Your task to perform on an android device: find snoozed emails in the gmail app Image 0: 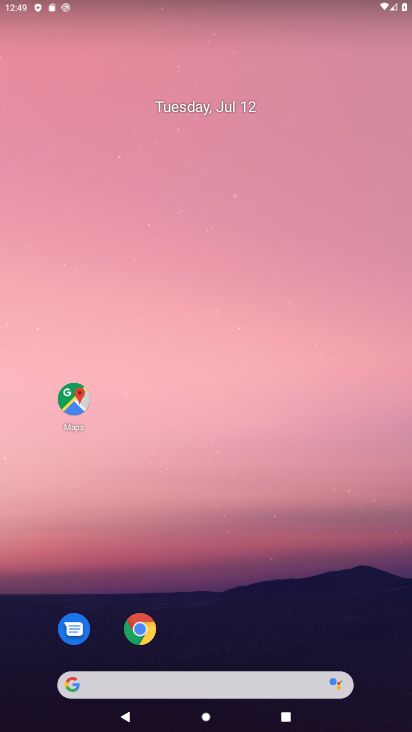
Step 0: drag from (305, 648) to (352, 80)
Your task to perform on an android device: find snoozed emails in the gmail app Image 1: 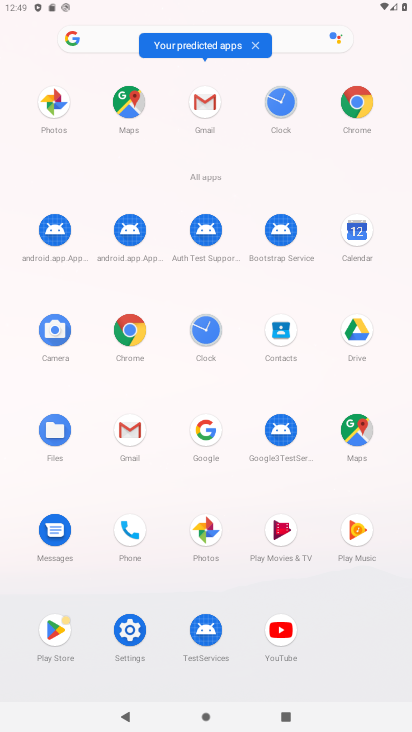
Step 1: click (124, 640)
Your task to perform on an android device: find snoozed emails in the gmail app Image 2: 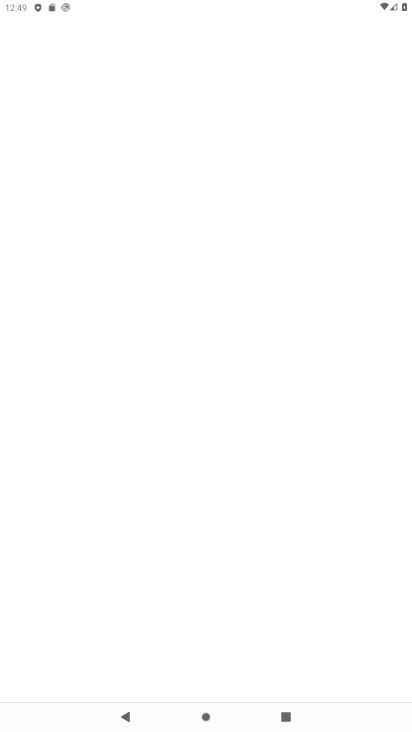
Step 2: press home button
Your task to perform on an android device: find snoozed emails in the gmail app Image 3: 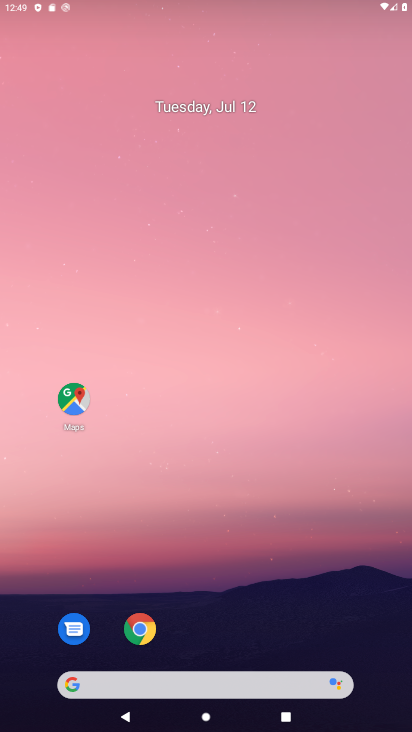
Step 3: drag from (277, 653) to (307, 121)
Your task to perform on an android device: find snoozed emails in the gmail app Image 4: 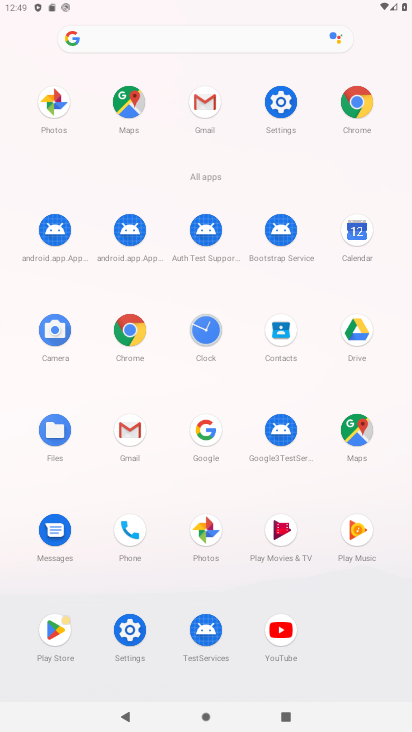
Step 4: click (125, 444)
Your task to perform on an android device: find snoozed emails in the gmail app Image 5: 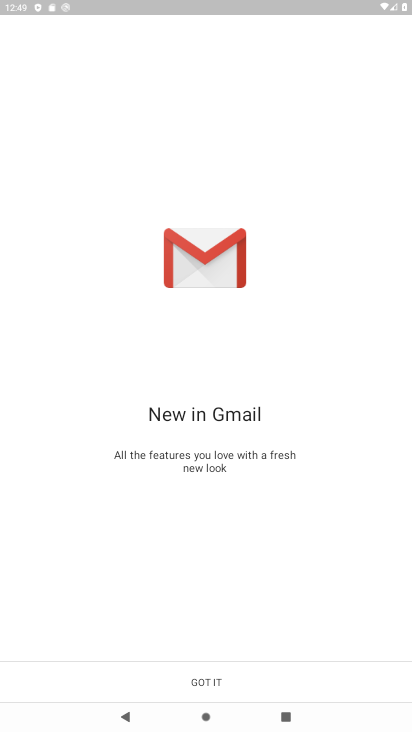
Step 5: click (220, 675)
Your task to perform on an android device: find snoozed emails in the gmail app Image 6: 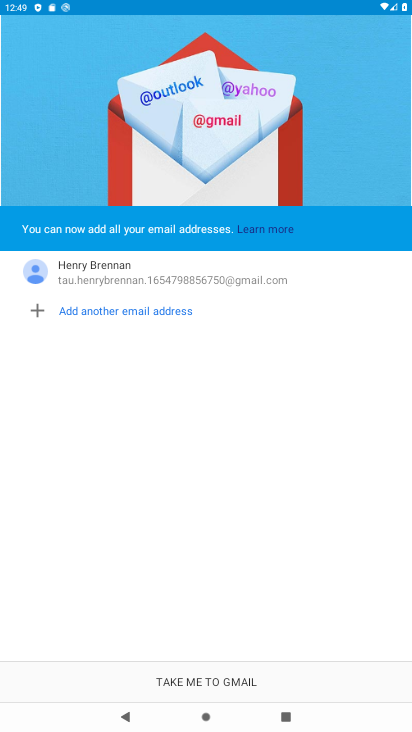
Step 6: click (220, 677)
Your task to perform on an android device: find snoozed emails in the gmail app Image 7: 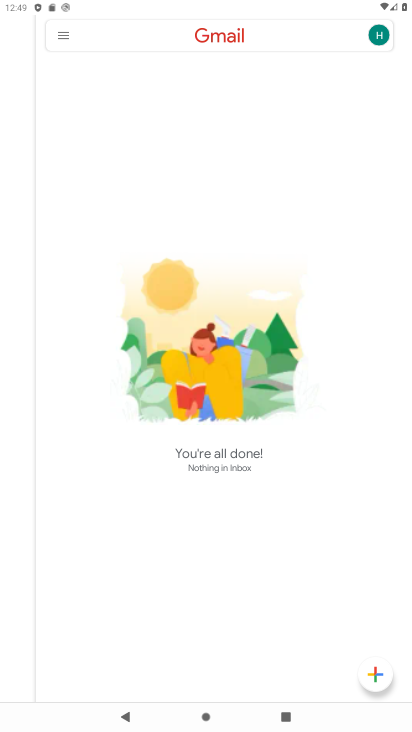
Step 7: click (37, 36)
Your task to perform on an android device: find snoozed emails in the gmail app Image 8: 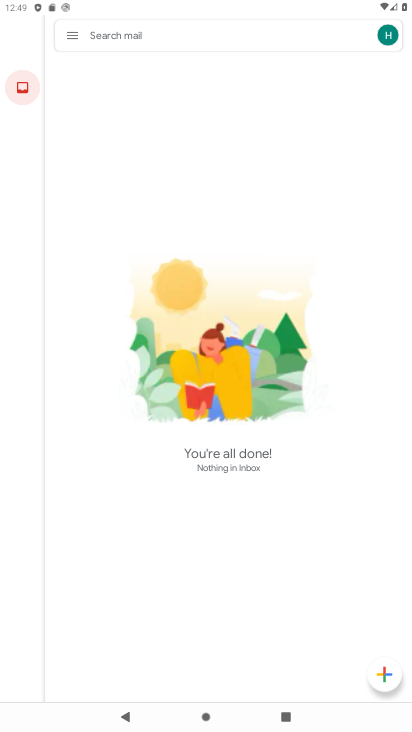
Step 8: click (67, 43)
Your task to perform on an android device: find snoozed emails in the gmail app Image 9: 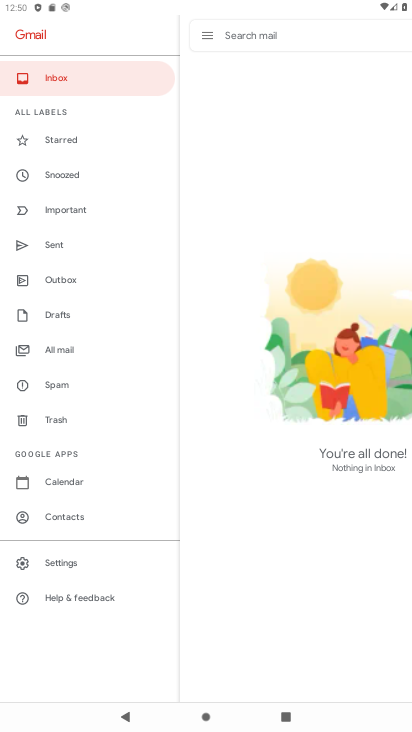
Step 9: click (75, 176)
Your task to perform on an android device: find snoozed emails in the gmail app Image 10: 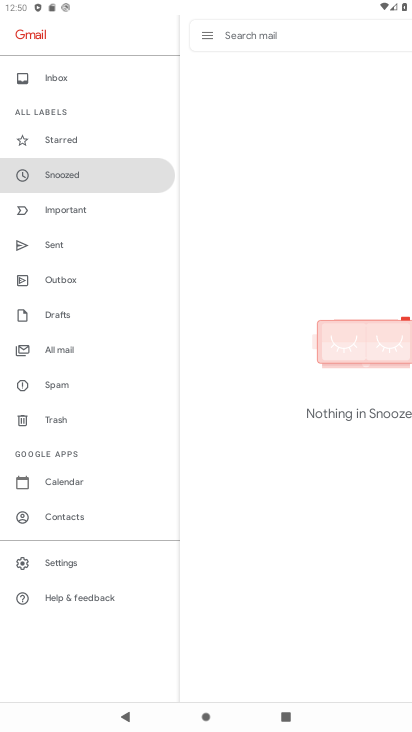
Step 10: task complete